Your task to perform on an android device: Open settings on Google Maps Image 0: 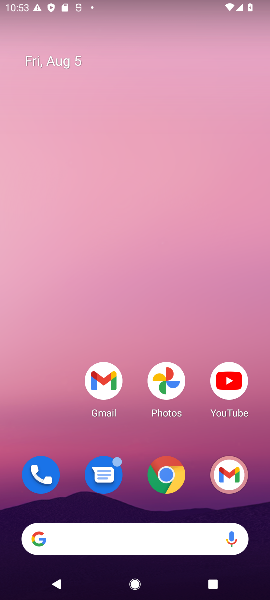
Step 0: drag from (132, 500) to (157, 22)
Your task to perform on an android device: Open settings on Google Maps Image 1: 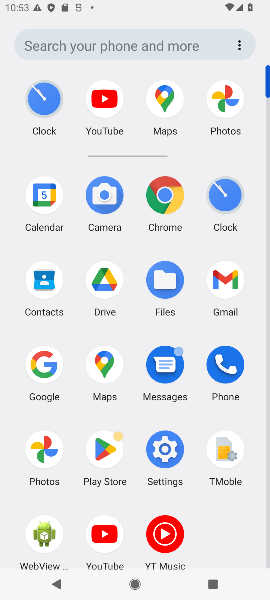
Step 1: click (104, 365)
Your task to perform on an android device: Open settings on Google Maps Image 2: 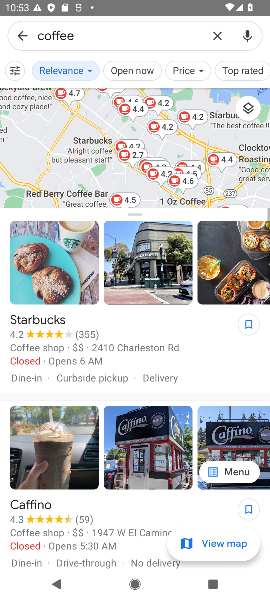
Step 2: click (21, 29)
Your task to perform on an android device: Open settings on Google Maps Image 3: 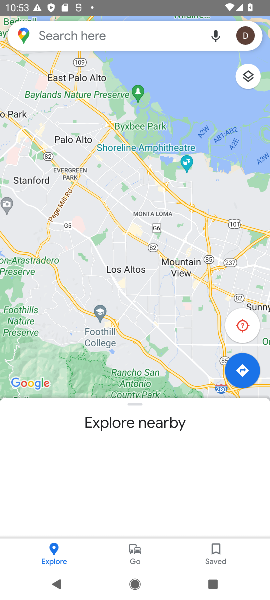
Step 3: click (247, 36)
Your task to perform on an android device: Open settings on Google Maps Image 4: 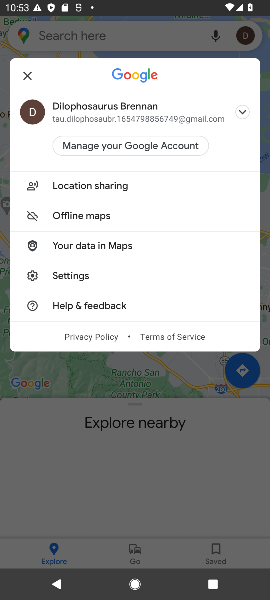
Step 4: click (72, 272)
Your task to perform on an android device: Open settings on Google Maps Image 5: 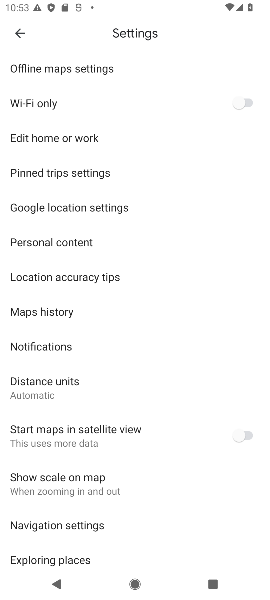
Step 5: task complete